Your task to perform on an android device: Open Youtube and go to "Your channel" Image 0: 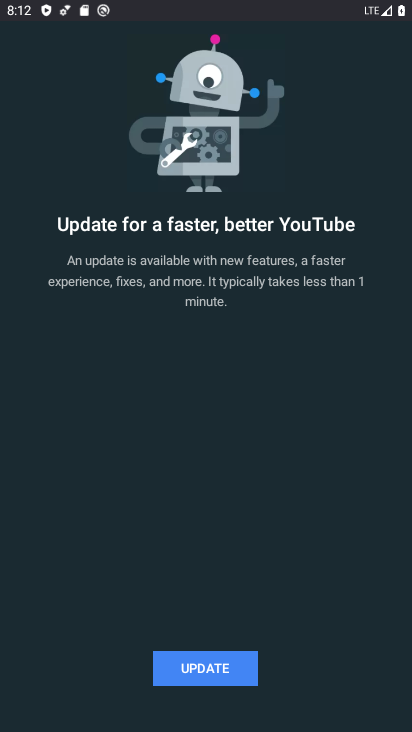
Step 0: press home button
Your task to perform on an android device: Open Youtube and go to "Your channel" Image 1: 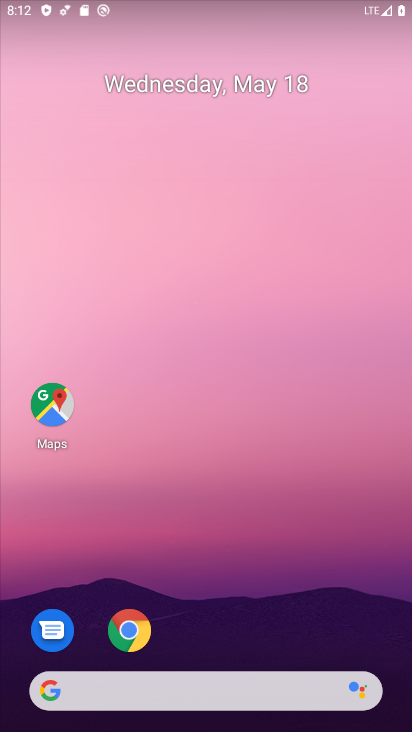
Step 1: drag from (137, 693) to (317, 87)
Your task to perform on an android device: Open Youtube and go to "Your channel" Image 2: 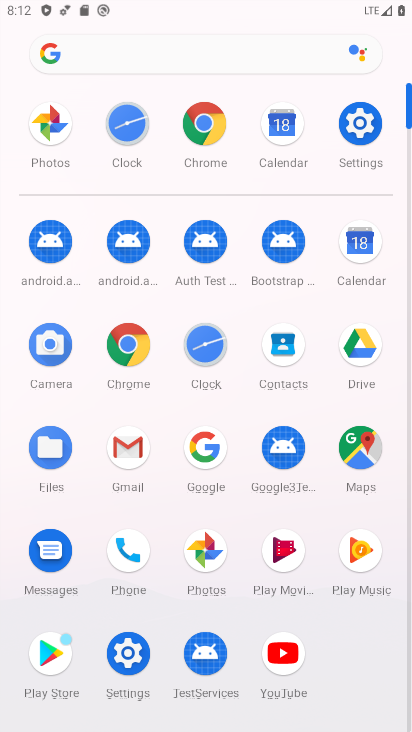
Step 2: click (295, 657)
Your task to perform on an android device: Open Youtube and go to "Your channel" Image 3: 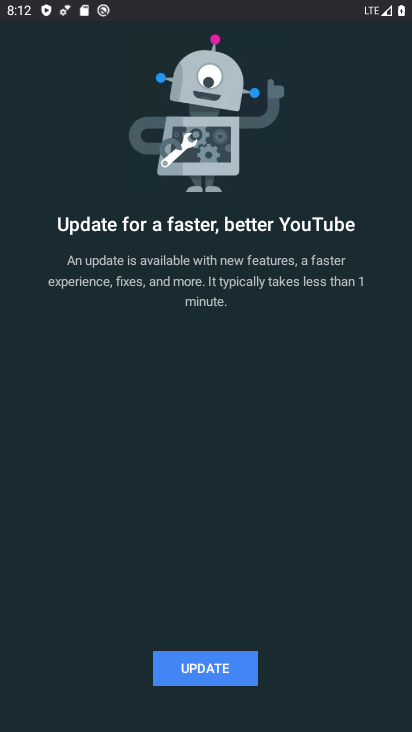
Step 3: click (191, 672)
Your task to perform on an android device: Open Youtube and go to "Your channel" Image 4: 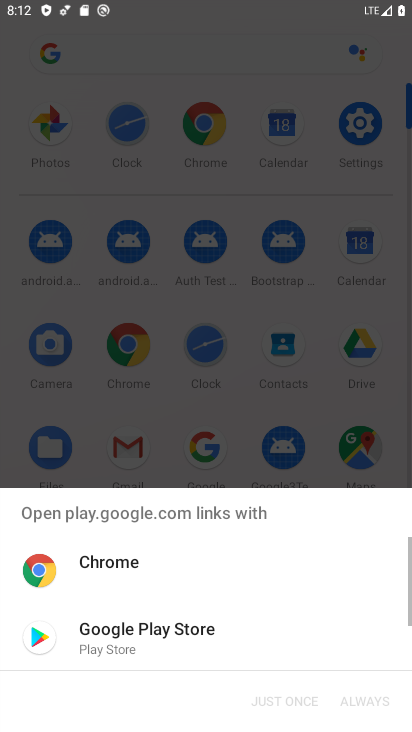
Step 4: click (161, 628)
Your task to perform on an android device: Open Youtube and go to "Your channel" Image 5: 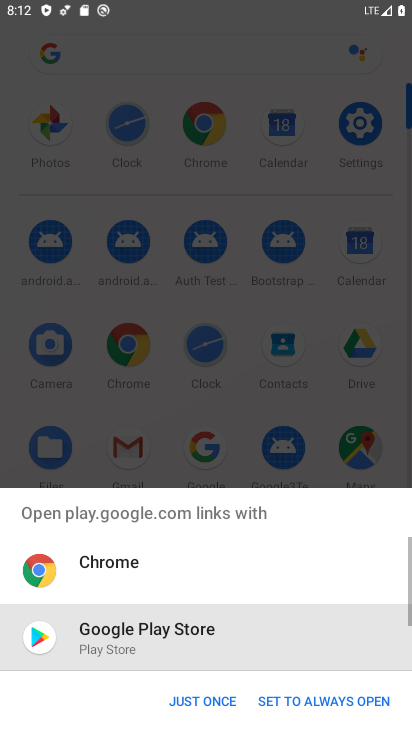
Step 5: click (199, 703)
Your task to perform on an android device: Open Youtube and go to "Your channel" Image 6: 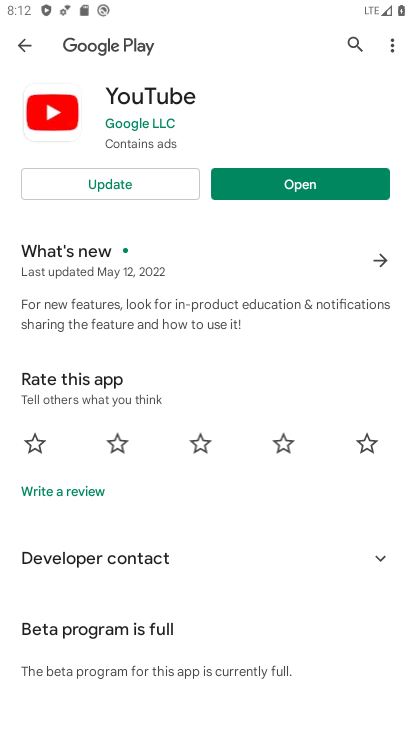
Step 6: click (145, 184)
Your task to perform on an android device: Open Youtube and go to "Your channel" Image 7: 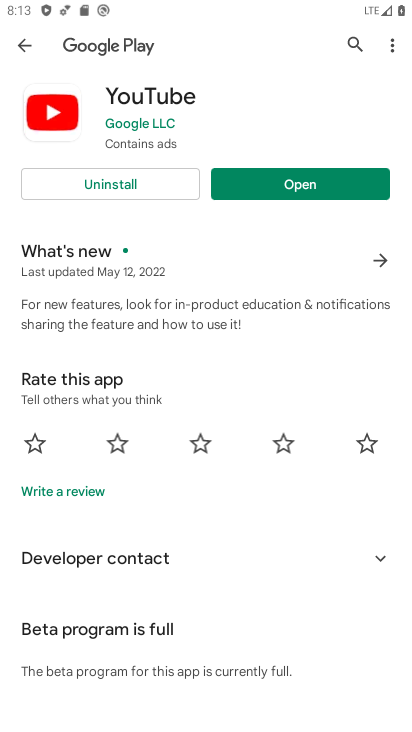
Step 7: click (280, 188)
Your task to perform on an android device: Open Youtube and go to "Your channel" Image 8: 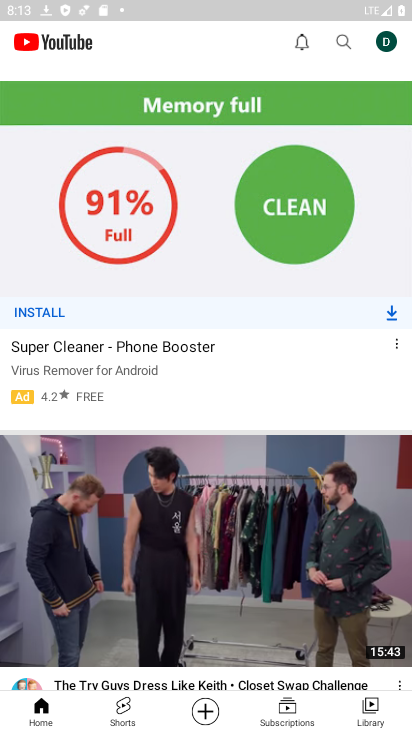
Step 8: click (387, 43)
Your task to perform on an android device: Open Youtube and go to "Your channel" Image 9: 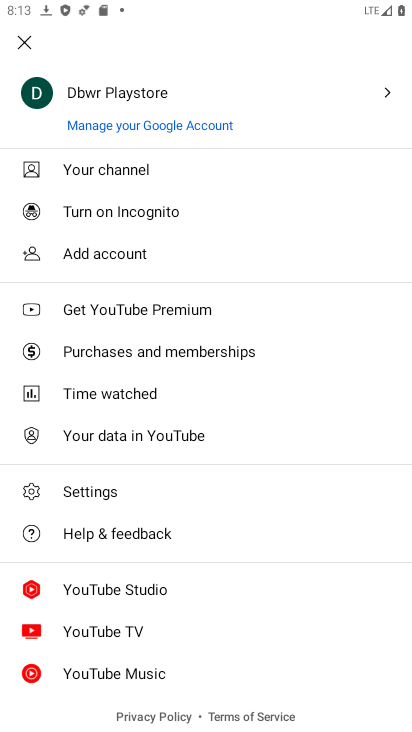
Step 9: click (119, 166)
Your task to perform on an android device: Open Youtube and go to "Your channel" Image 10: 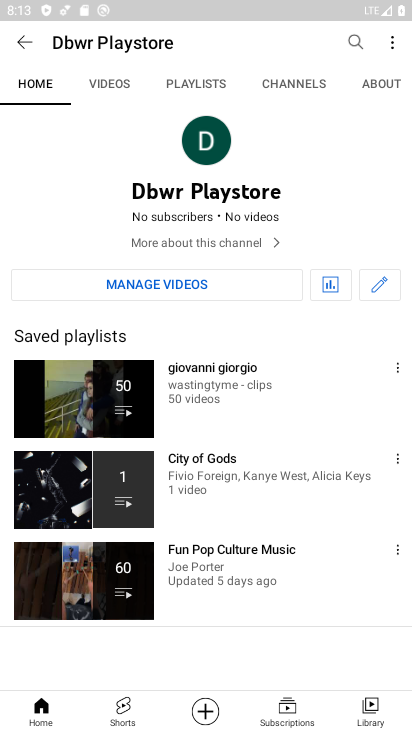
Step 10: task complete